Your task to perform on an android device: Go to Yahoo.com Image 0: 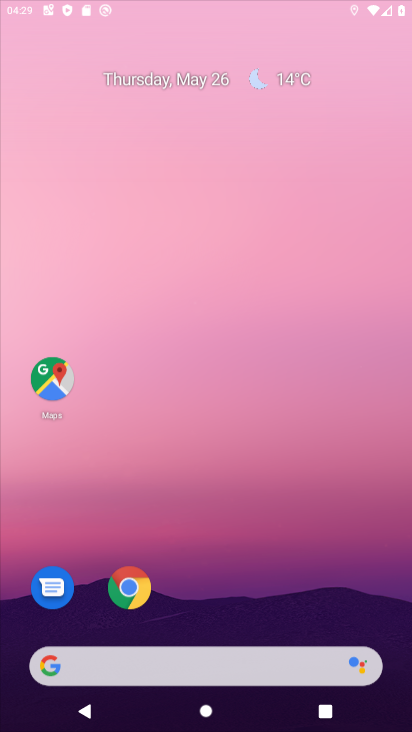
Step 0: click (267, 433)
Your task to perform on an android device: Go to Yahoo.com Image 1: 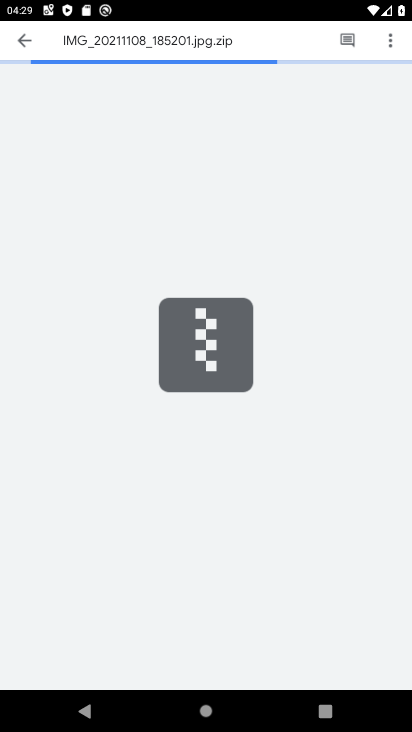
Step 1: press home button
Your task to perform on an android device: Go to Yahoo.com Image 2: 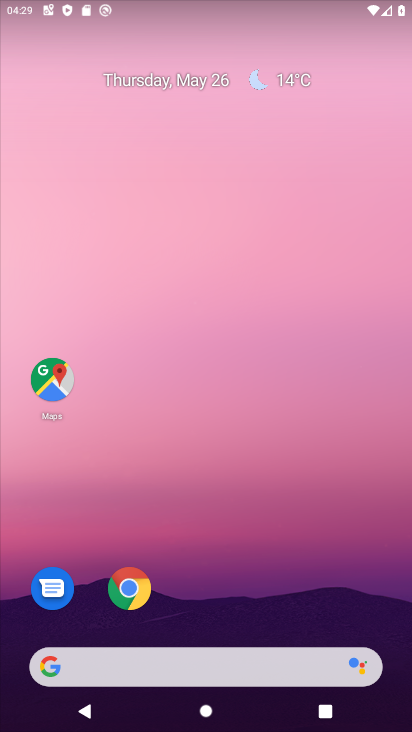
Step 2: click (171, 658)
Your task to perform on an android device: Go to Yahoo.com Image 3: 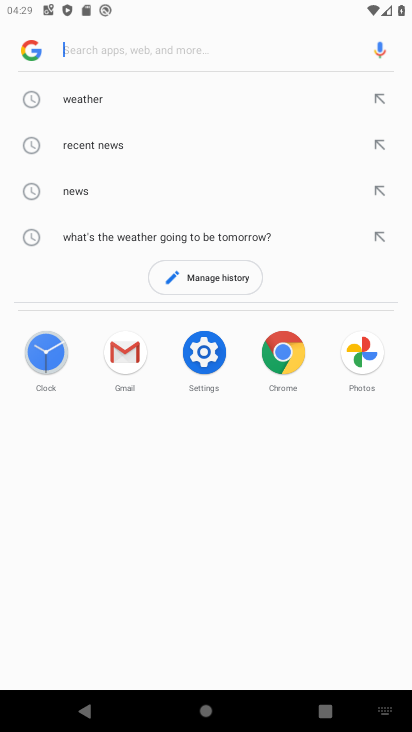
Step 3: type "yahoo.com"
Your task to perform on an android device: Go to Yahoo.com Image 4: 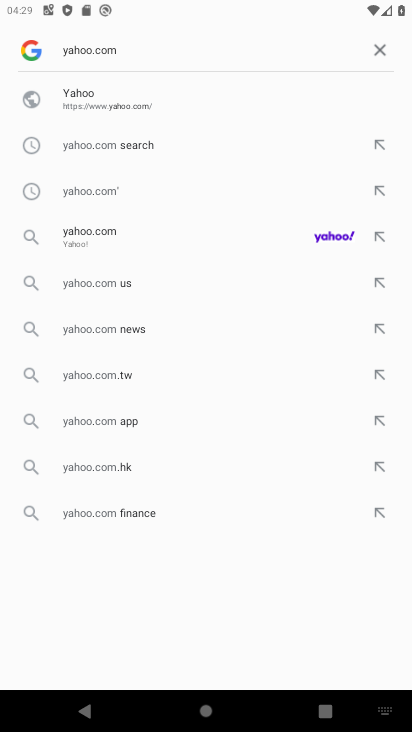
Step 4: click (216, 88)
Your task to perform on an android device: Go to Yahoo.com Image 5: 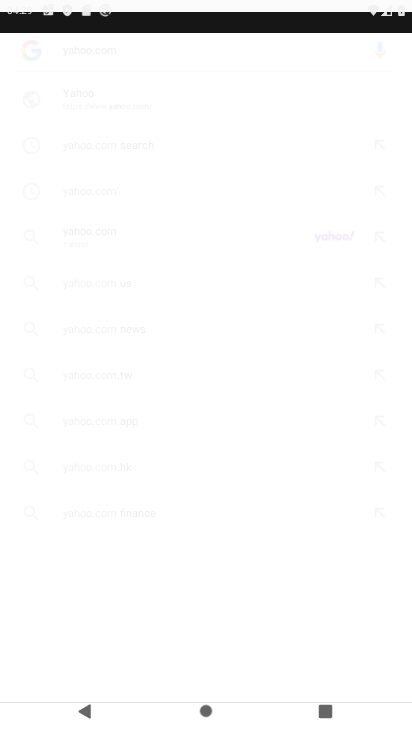
Step 5: task complete